Your task to perform on an android device: turn on data saver in the chrome app Image 0: 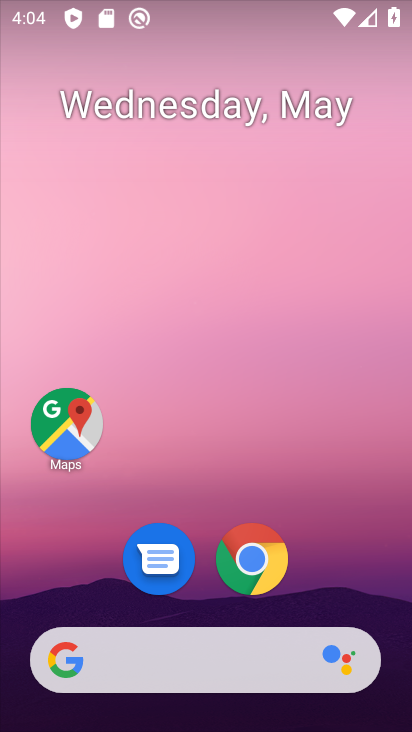
Step 0: click (269, 557)
Your task to perform on an android device: turn on data saver in the chrome app Image 1: 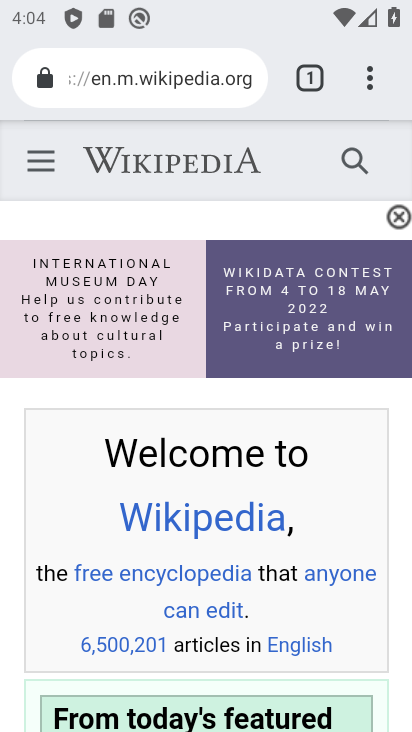
Step 1: click (365, 73)
Your task to perform on an android device: turn on data saver in the chrome app Image 2: 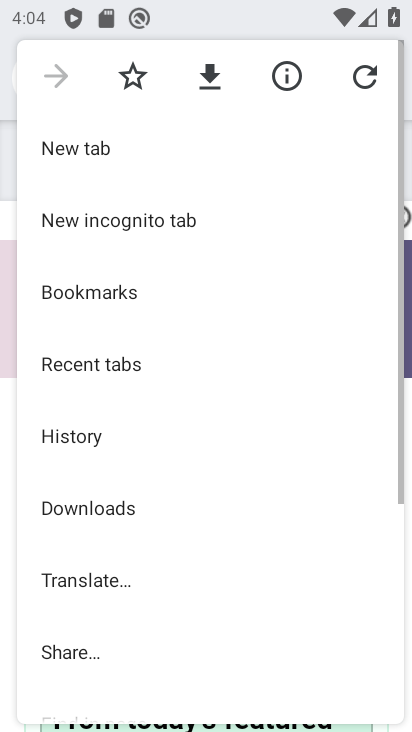
Step 2: drag from (212, 573) to (162, 216)
Your task to perform on an android device: turn on data saver in the chrome app Image 3: 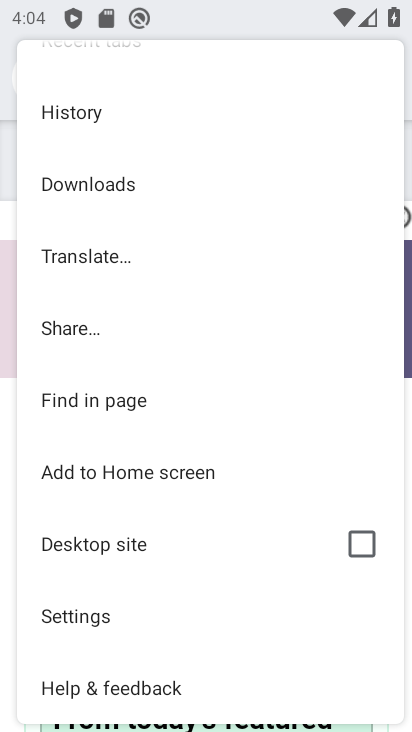
Step 3: click (116, 616)
Your task to perform on an android device: turn on data saver in the chrome app Image 4: 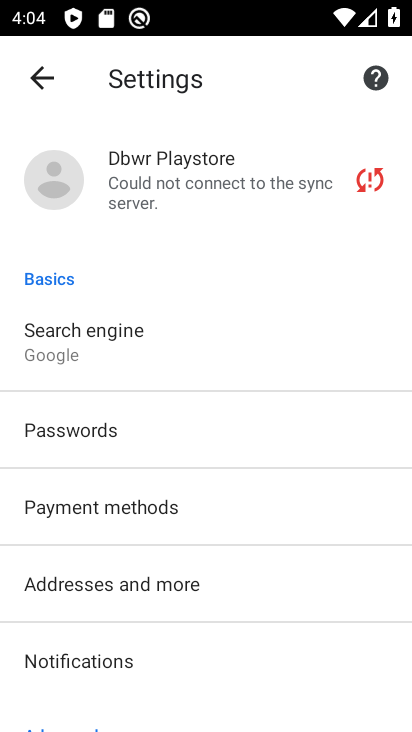
Step 4: drag from (211, 585) to (198, 235)
Your task to perform on an android device: turn on data saver in the chrome app Image 5: 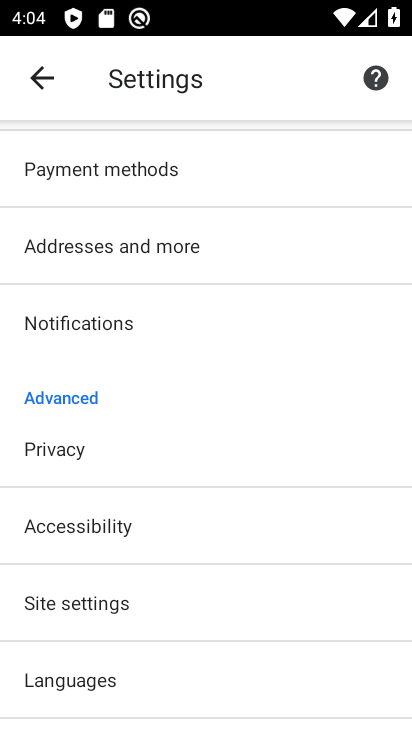
Step 5: drag from (156, 627) to (156, 380)
Your task to perform on an android device: turn on data saver in the chrome app Image 6: 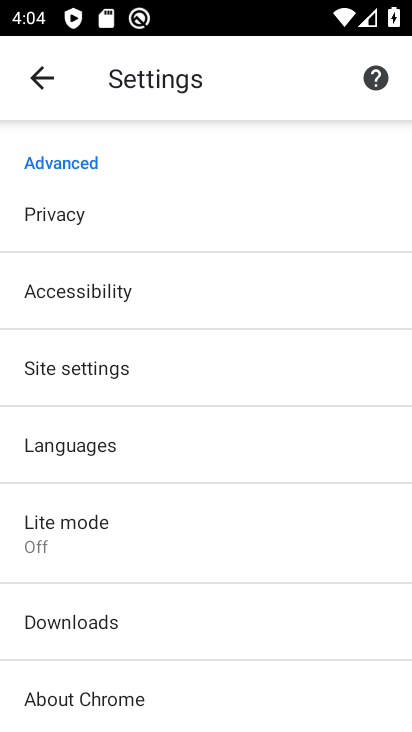
Step 6: click (135, 540)
Your task to perform on an android device: turn on data saver in the chrome app Image 7: 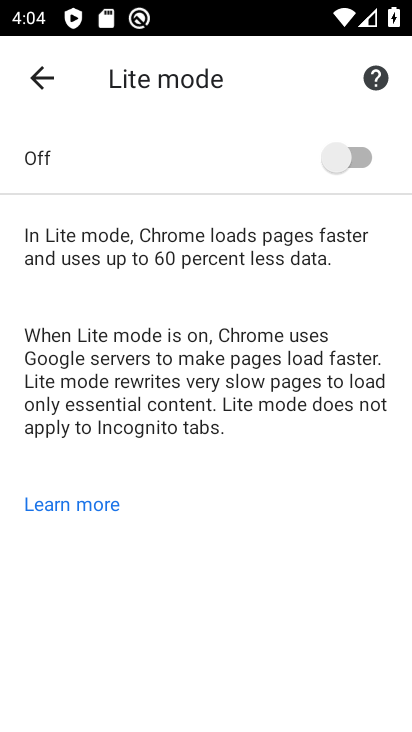
Step 7: click (356, 166)
Your task to perform on an android device: turn on data saver in the chrome app Image 8: 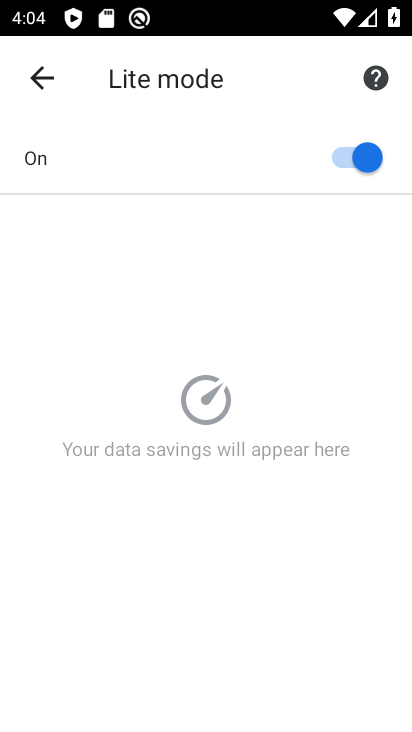
Step 8: task complete